Your task to perform on an android device: Open settings Image 0: 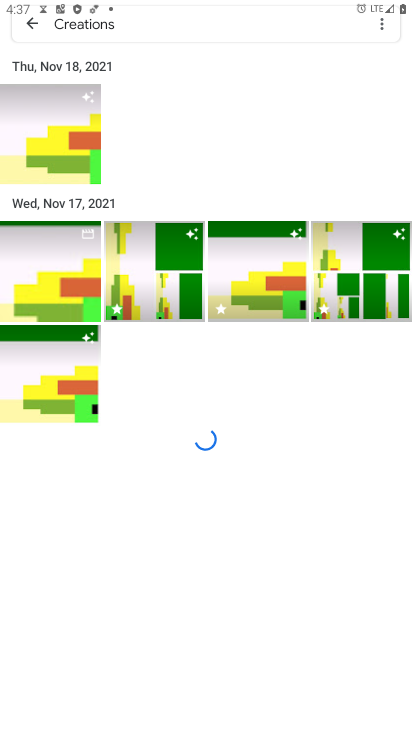
Step 0: press home button
Your task to perform on an android device: Open settings Image 1: 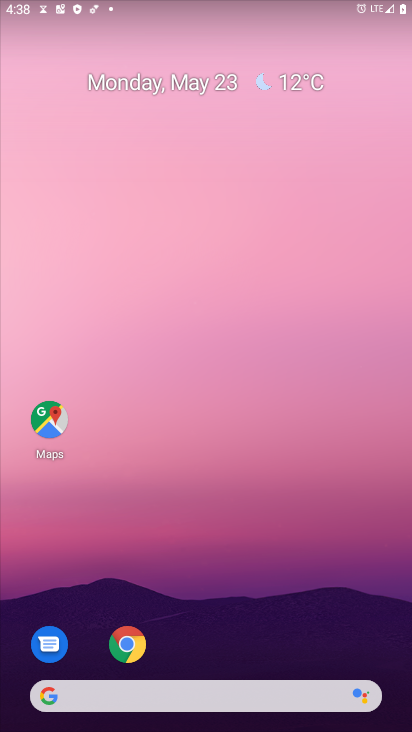
Step 1: drag from (229, 645) to (186, 199)
Your task to perform on an android device: Open settings Image 2: 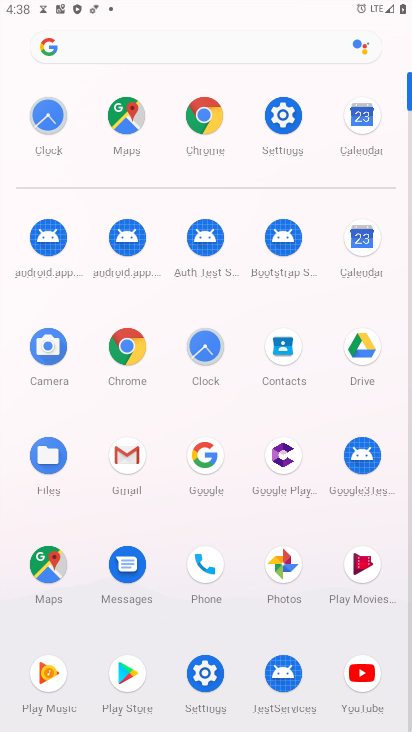
Step 2: click (285, 128)
Your task to perform on an android device: Open settings Image 3: 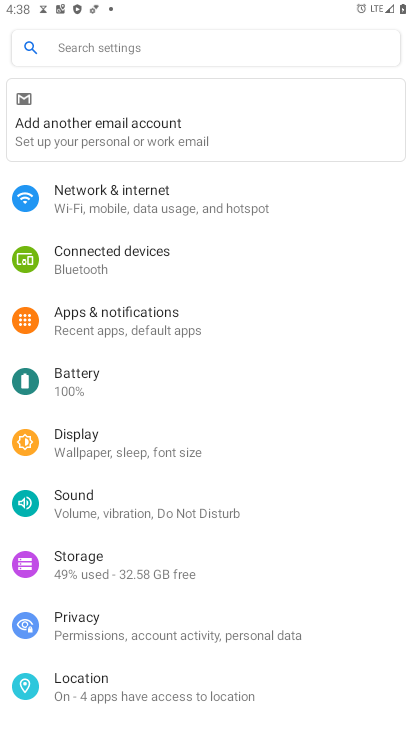
Step 3: task complete